Your task to perform on an android device: change the upload size in google photos Image 0: 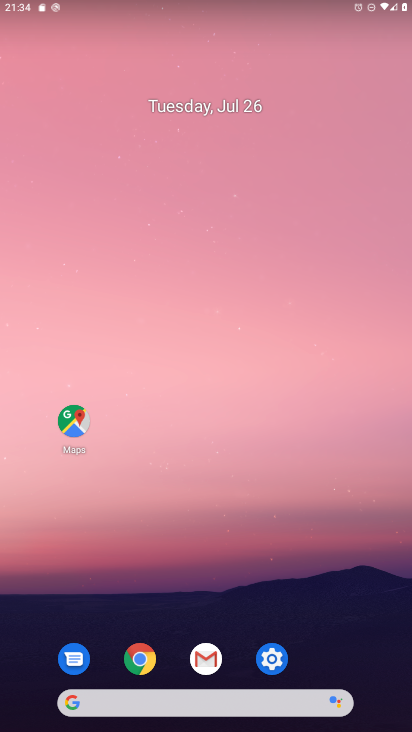
Step 0: drag from (256, 697) to (253, 61)
Your task to perform on an android device: change the upload size in google photos Image 1: 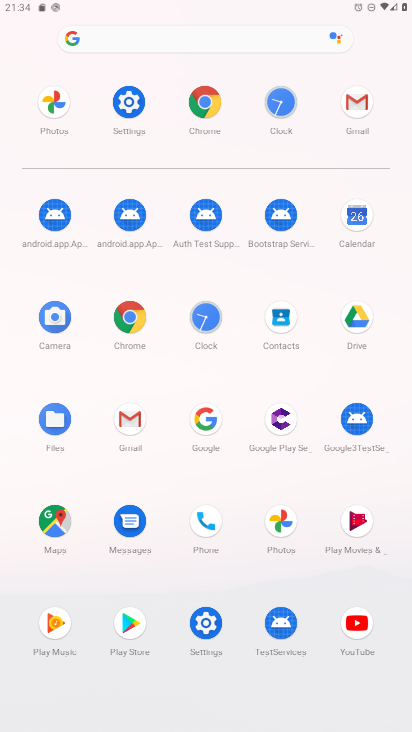
Step 1: click (283, 512)
Your task to perform on an android device: change the upload size in google photos Image 2: 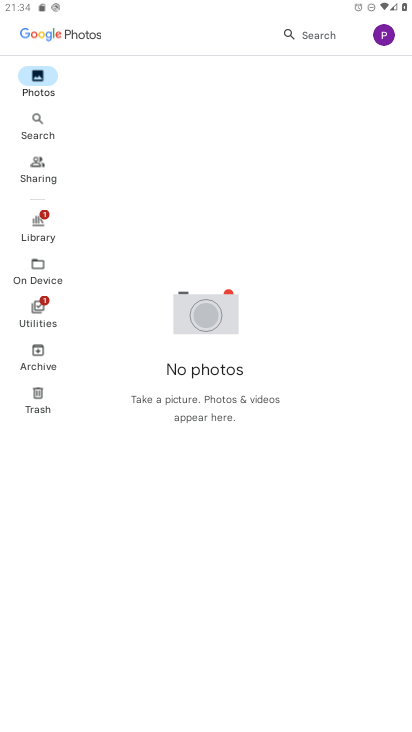
Step 2: click (385, 22)
Your task to perform on an android device: change the upload size in google photos Image 3: 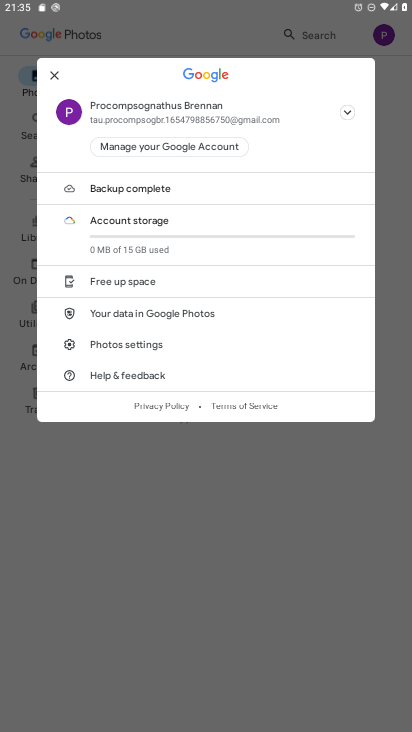
Step 3: click (133, 348)
Your task to perform on an android device: change the upload size in google photos Image 4: 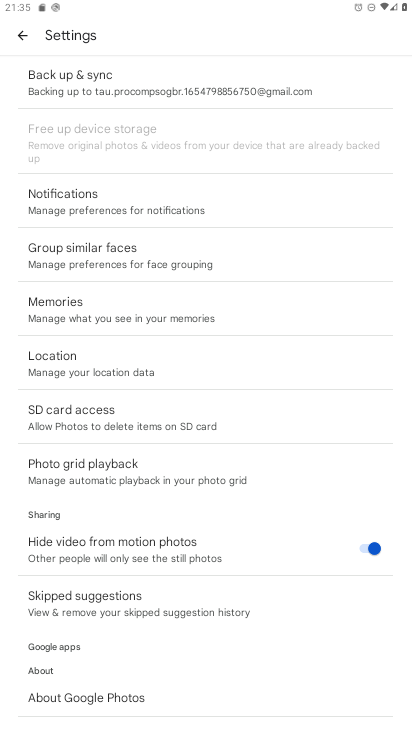
Step 4: click (102, 86)
Your task to perform on an android device: change the upload size in google photos Image 5: 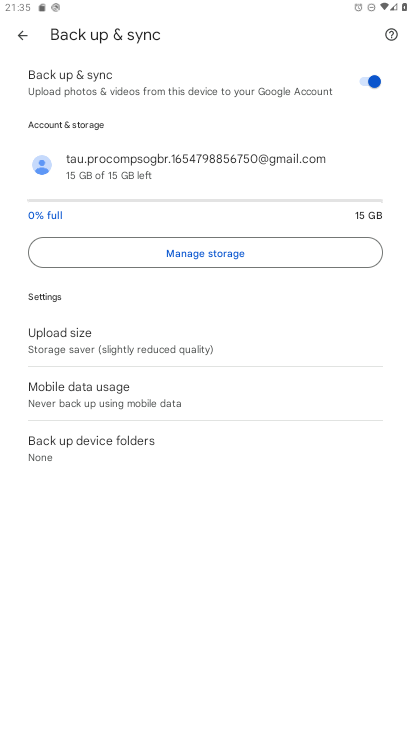
Step 5: click (89, 335)
Your task to perform on an android device: change the upload size in google photos Image 6: 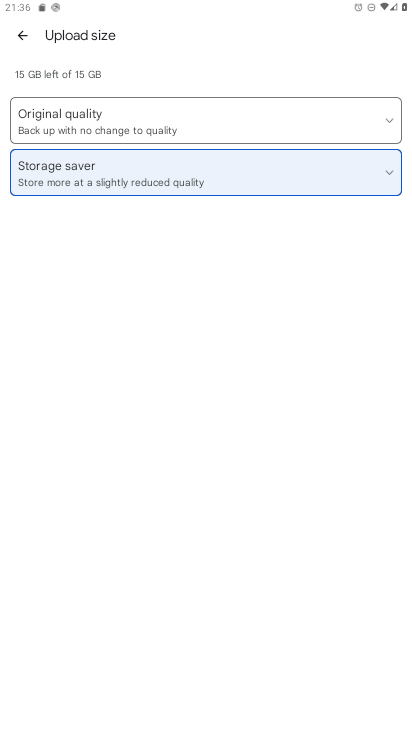
Step 6: task complete